Your task to perform on an android device: Go to accessibility settings Image 0: 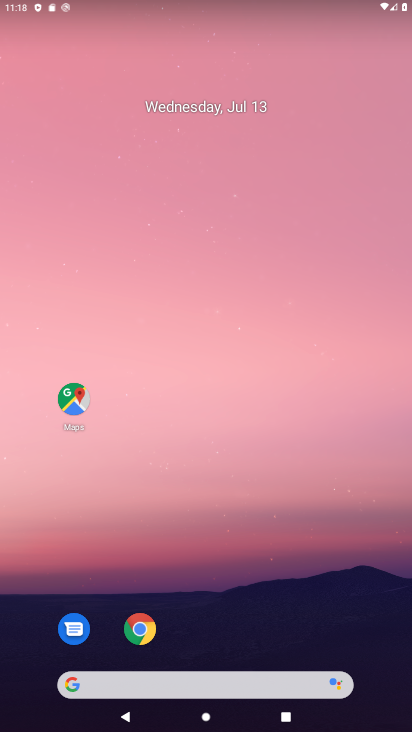
Step 0: drag from (207, 613) to (304, 76)
Your task to perform on an android device: Go to accessibility settings Image 1: 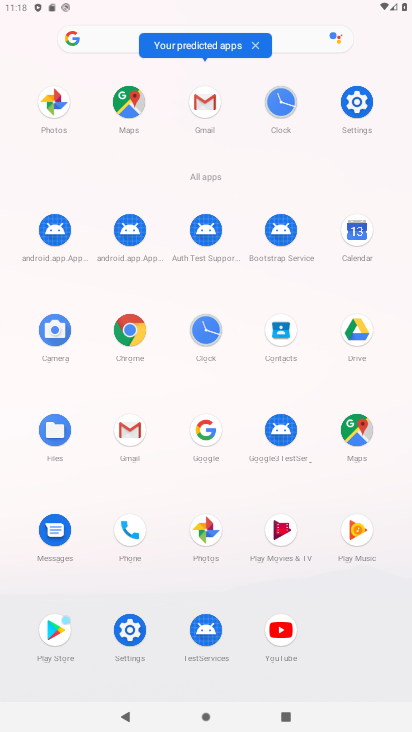
Step 1: click (124, 625)
Your task to perform on an android device: Go to accessibility settings Image 2: 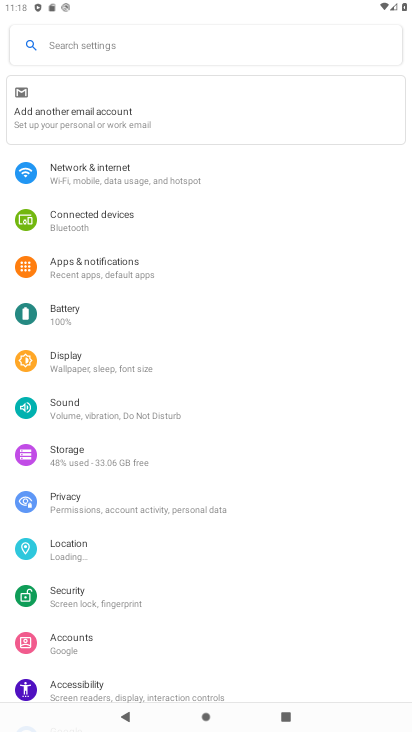
Step 2: drag from (168, 551) to (287, 49)
Your task to perform on an android device: Go to accessibility settings Image 3: 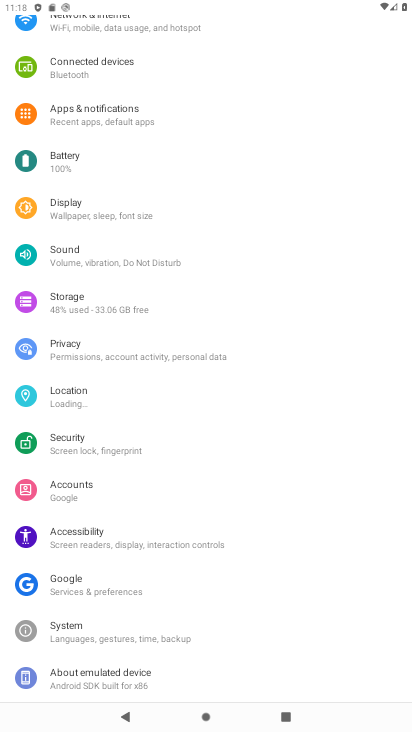
Step 3: drag from (139, 644) to (192, 432)
Your task to perform on an android device: Go to accessibility settings Image 4: 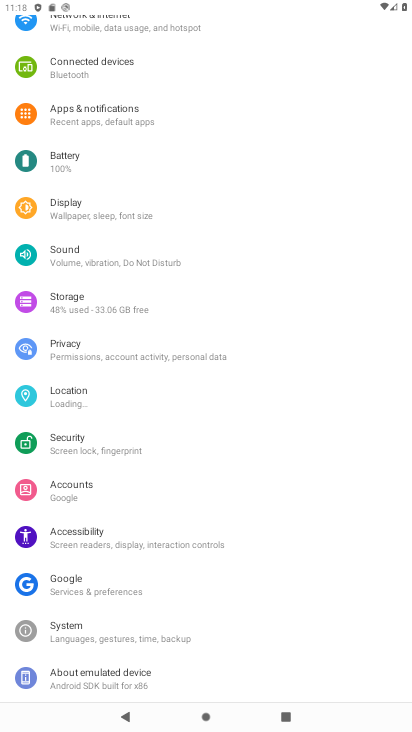
Step 4: click (143, 546)
Your task to perform on an android device: Go to accessibility settings Image 5: 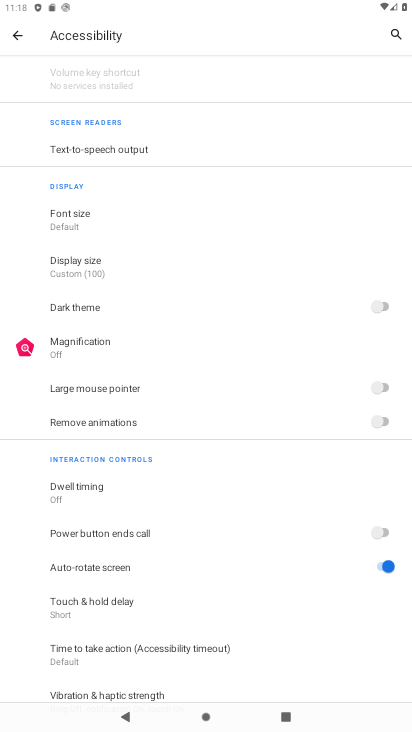
Step 5: task complete